Your task to perform on an android device: Open display settings Image 0: 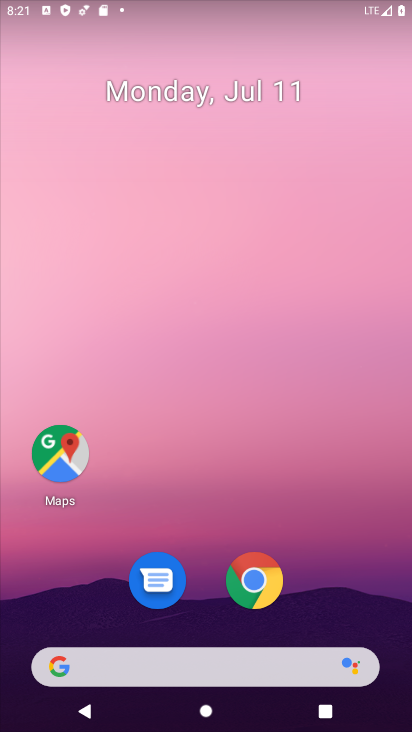
Step 0: drag from (225, 517) to (258, 78)
Your task to perform on an android device: Open display settings Image 1: 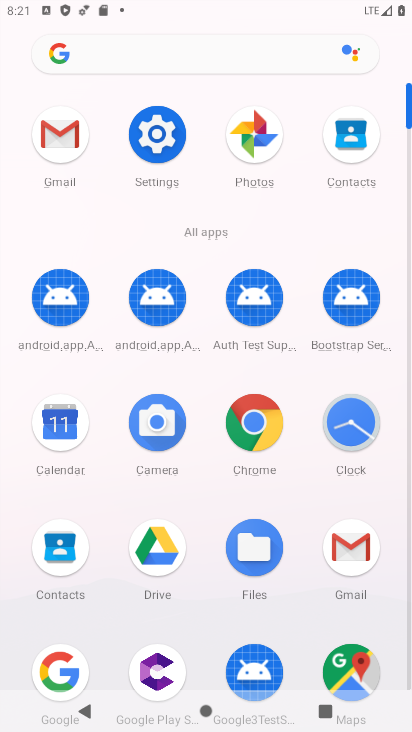
Step 1: click (165, 139)
Your task to perform on an android device: Open display settings Image 2: 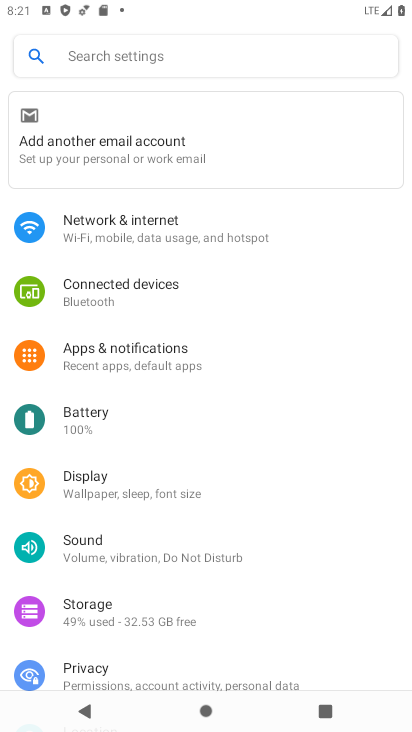
Step 2: click (109, 490)
Your task to perform on an android device: Open display settings Image 3: 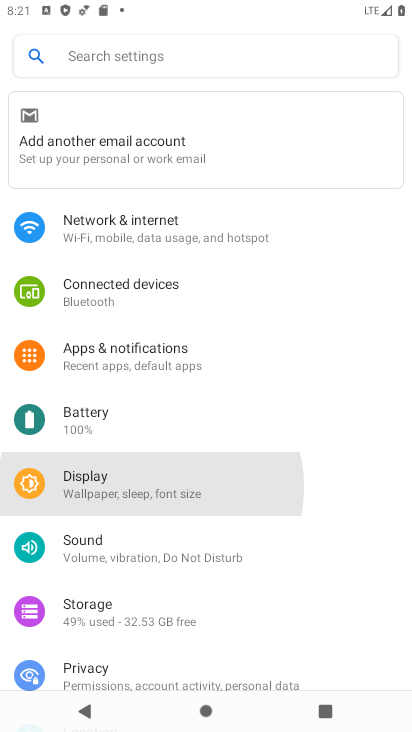
Step 3: click (109, 488)
Your task to perform on an android device: Open display settings Image 4: 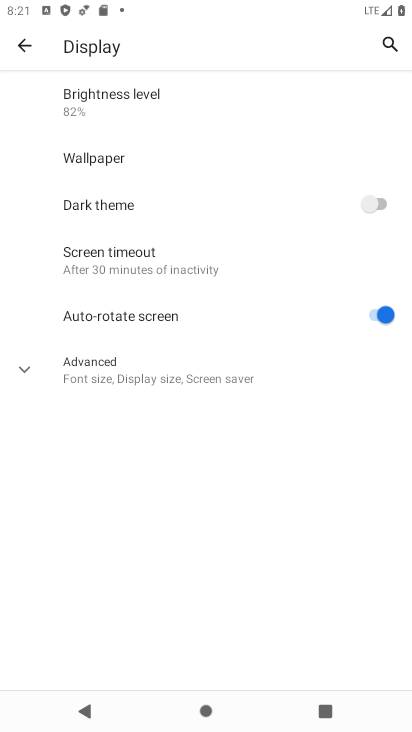
Step 4: click (19, 364)
Your task to perform on an android device: Open display settings Image 5: 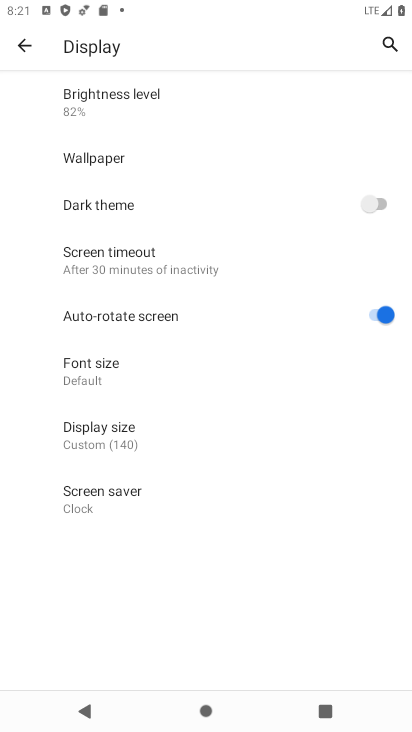
Step 5: task complete